Your task to perform on an android device: allow notifications from all sites in the chrome app Image 0: 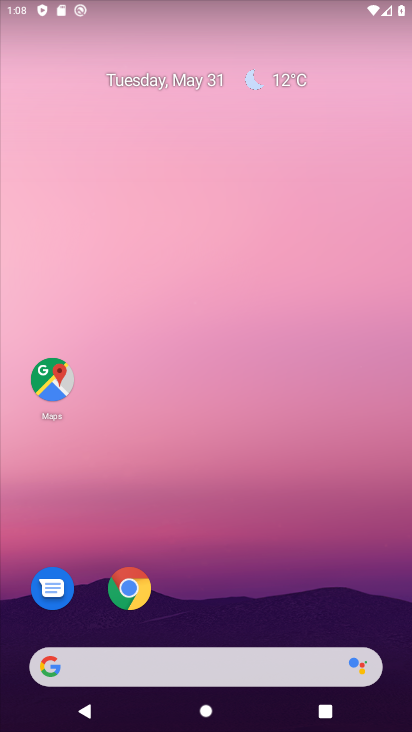
Step 0: click (130, 599)
Your task to perform on an android device: allow notifications from all sites in the chrome app Image 1: 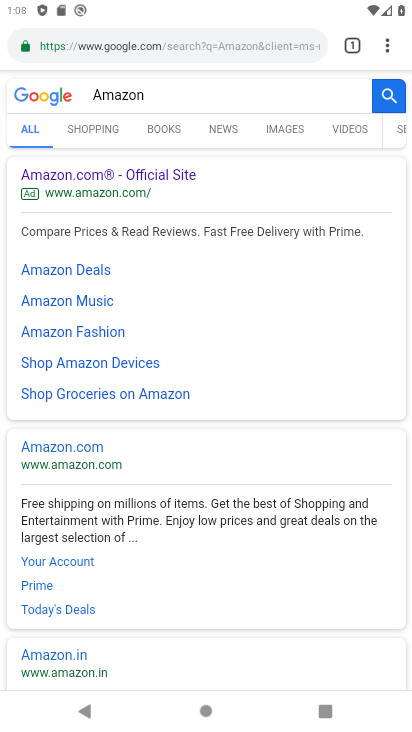
Step 1: click (386, 42)
Your task to perform on an android device: allow notifications from all sites in the chrome app Image 2: 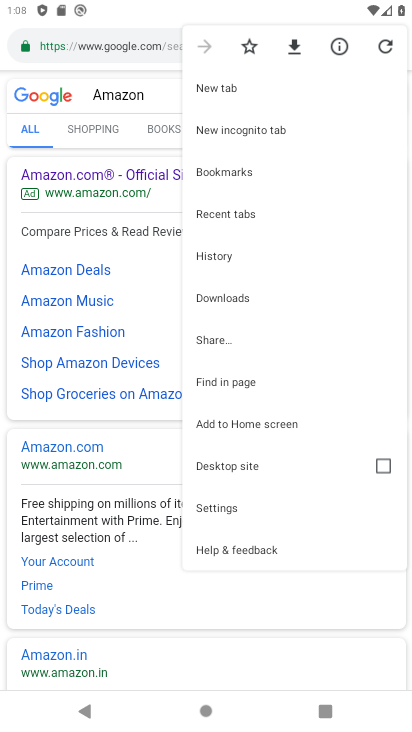
Step 2: click (223, 505)
Your task to perform on an android device: allow notifications from all sites in the chrome app Image 3: 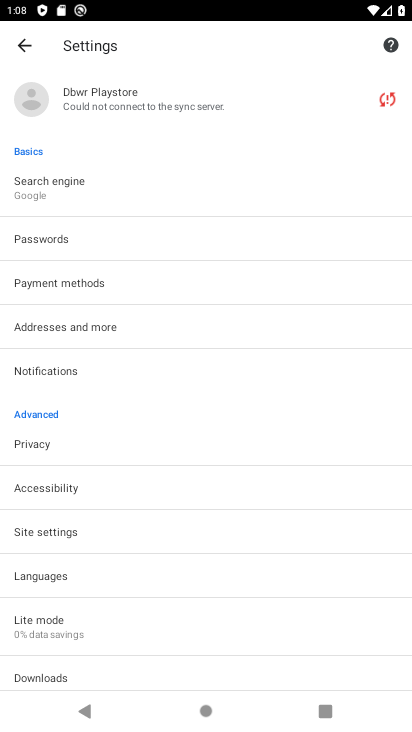
Step 3: click (38, 534)
Your task to perform on an android device: allow notifications from all sites in the chrome app Image 4: 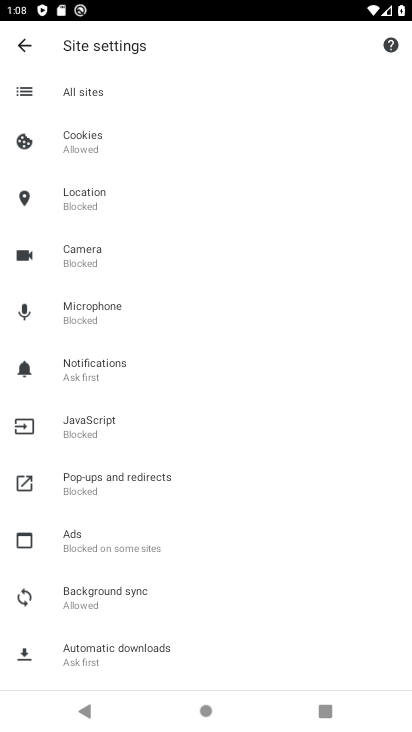
Step 4: click (94, 358)
Your task to perform on an android device: allow notifications from all sites in the chrome app Image 5: 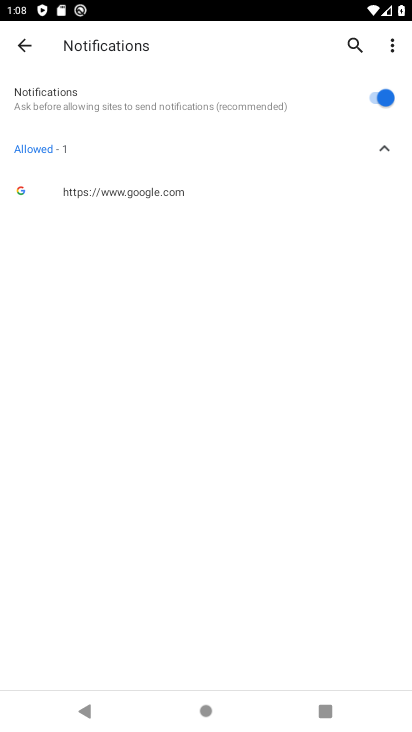
Step 5: task complete